Your task to perform on an android device: allow cookies in the chrome app Image 0: 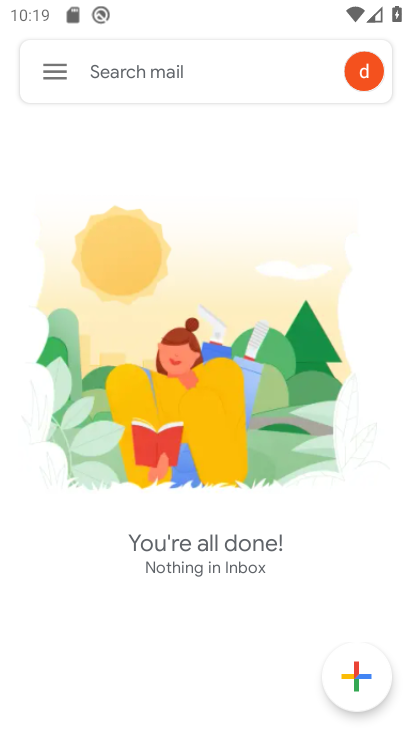
Step 0: press home button
Your task to perform on an android device: allow cookies in the chrome app Image 1: 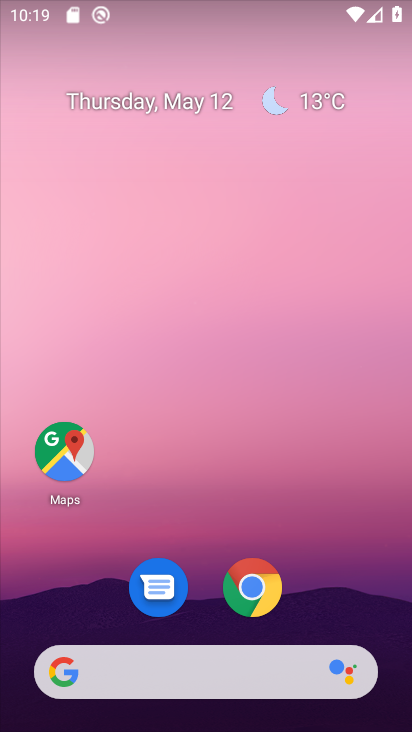
Step 1: click (246, 590)
Your task to perform on an android device: allow cookies in the chrome app Image 2: 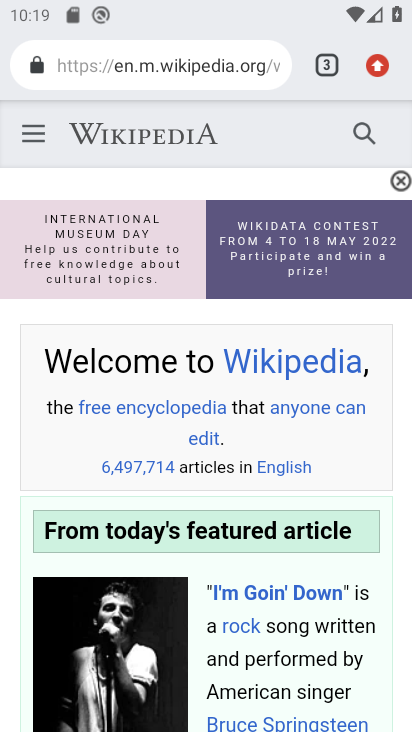
Step 2: click (384, 65)
Your task to perform on an android device: allow cookies in the chrome app Image 3: 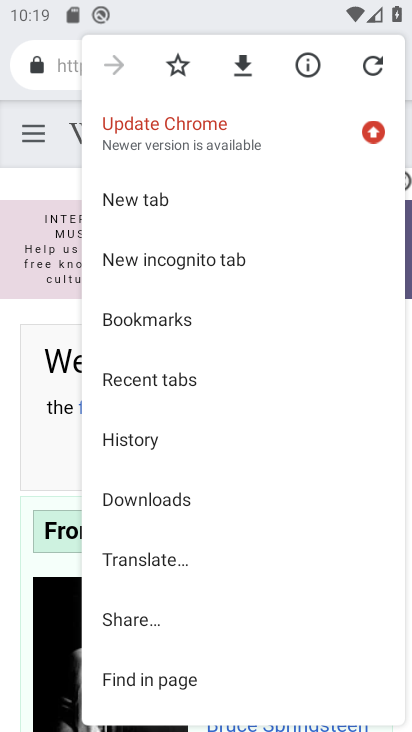
Step 3: drag from (161, 626) to (221, 188)
Your task to perform on an android device: allow cookies in the chrome app Image 4: 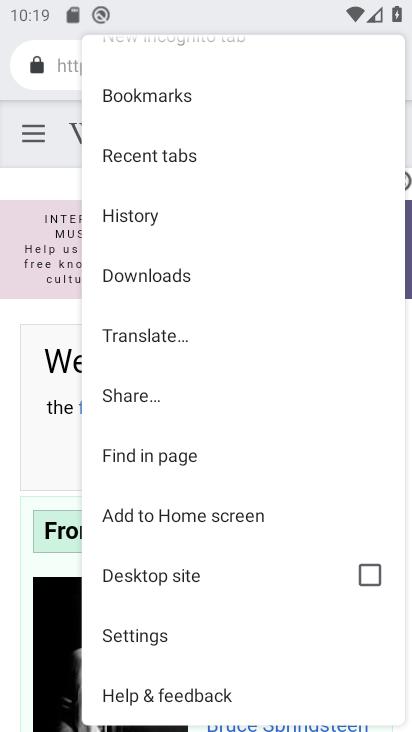
Step 4: click (150, 644)
Your task to perform on an android device: allow cookies in the chrome app Image 5: 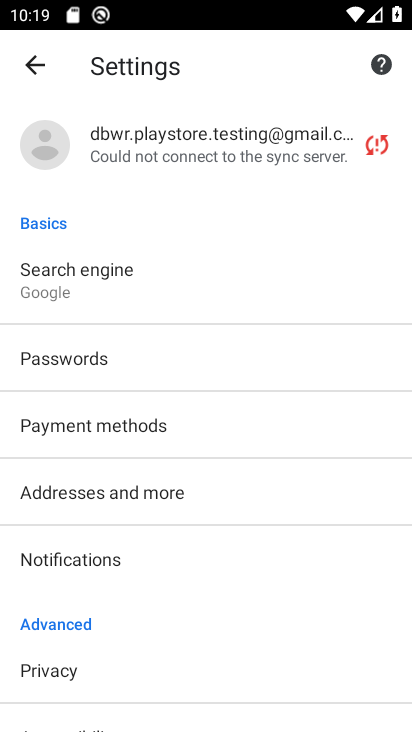
Step 5: drag from (149, 574) to (226, 173)
Your task to perform on an android device: allow cookies in the chrome app Image 6: 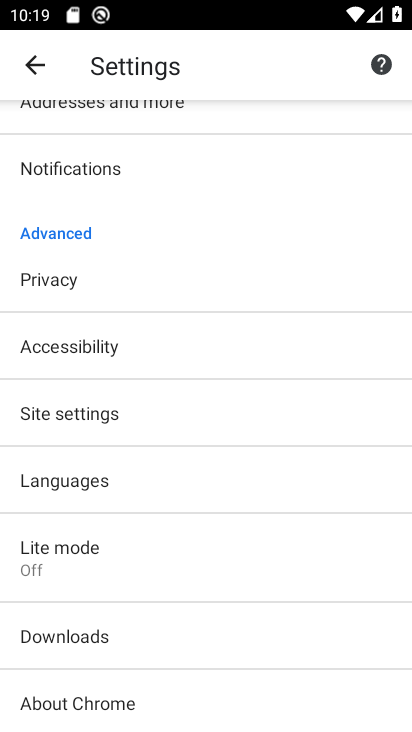
Step 6: drag from (125, 631) to (179, 332)
Your task to perform on an android device: allow cookies in the chrome app Image 7: 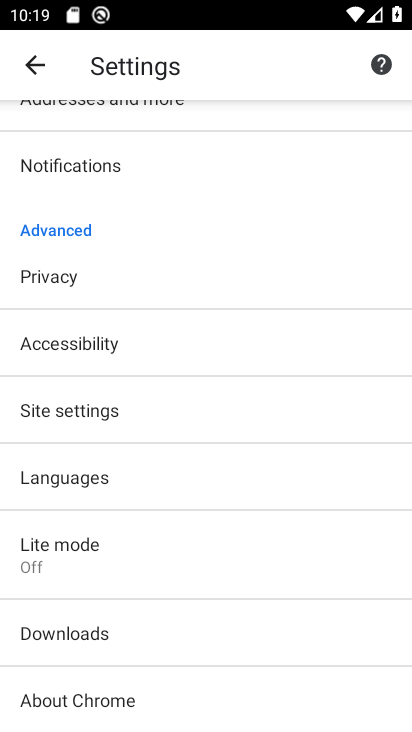
Step 7: click (119, 406)
Your task to perform on an android device: allow cookies in the chrome app Image 8: 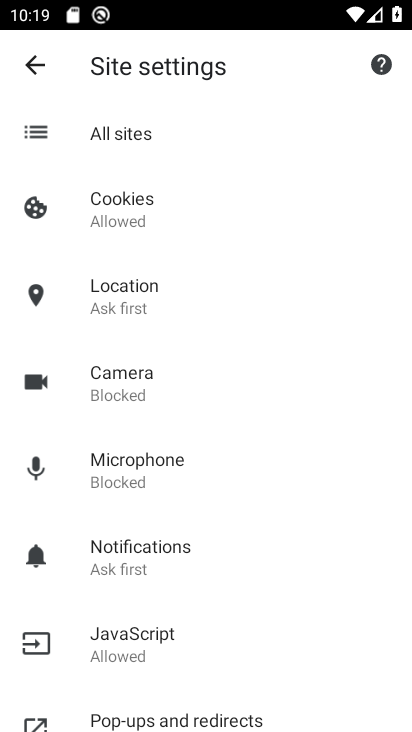
Step 8: task complete